Your task to perform on an android device: refresh tabs in the chrome app Image 0: 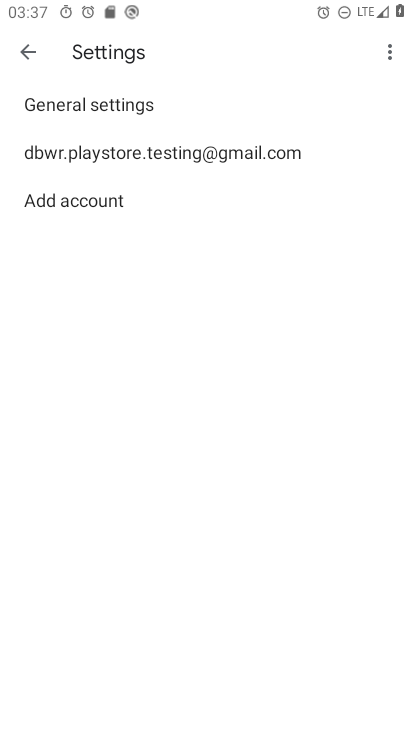
Step 0: press home button
Your task to perform on an android device: refresh tabs in the chrome app Image 1: 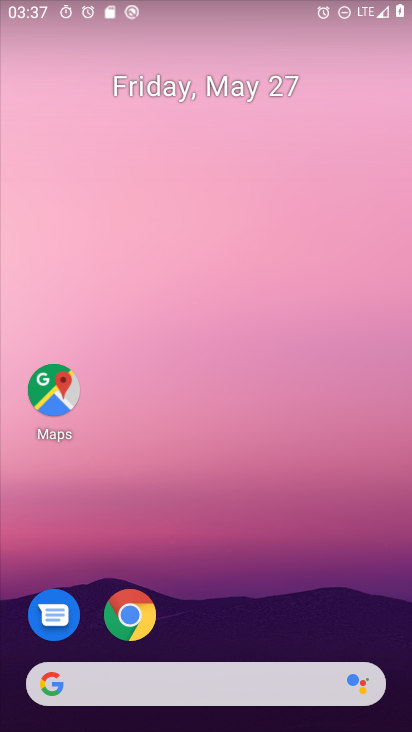
Step 1: drag from (371, 601) to (401, 127)
Your task to perform on an android device: refresh tabs in the chrome app Image 2: 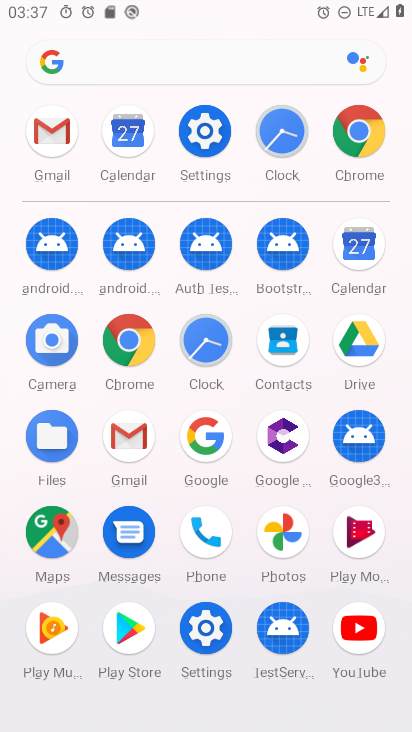
Step 2: click (142, 355)
Your task to perform on an android device: refresh tabs in the chrome app Image 3: 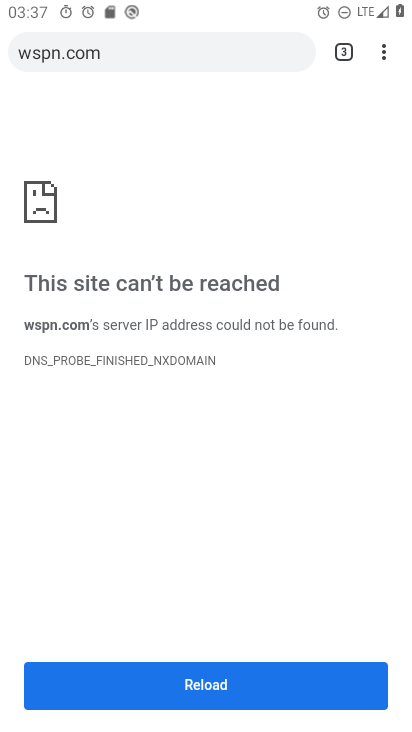
Step 3: click (381, 58)
Your task to perform on an android device: refresh tabs in the chrome app Image 4: 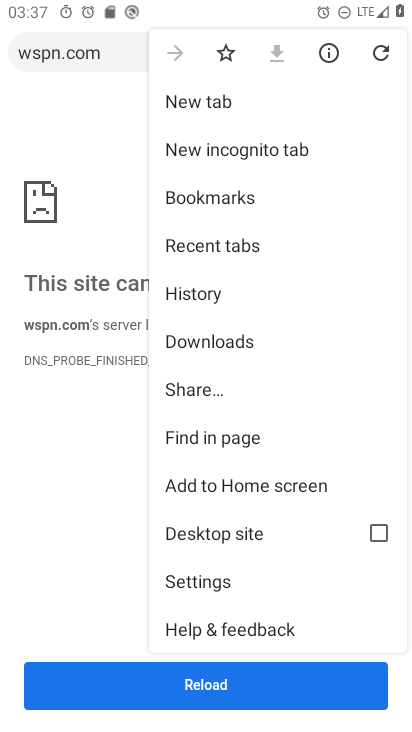
Step 4: click (378, 58)
Your task to perform on an android device: refresh tabs in the chrome app Image 5: 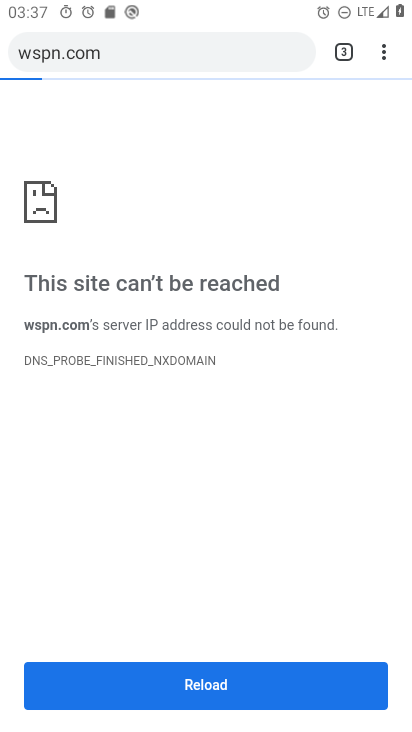
Step 5: click (378, 58)
Your task to perform on an android device: refresh tabs in the chrome app Image 6: 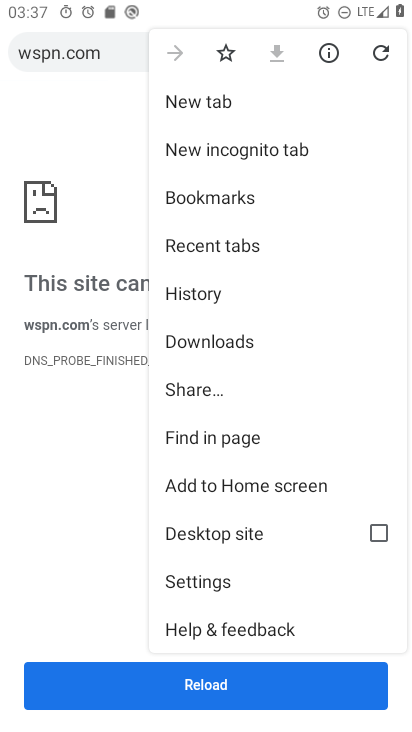
Step 6: click (116, 116)
Your task to perform on an android device: refresh tabs in the chrome app Image 7: 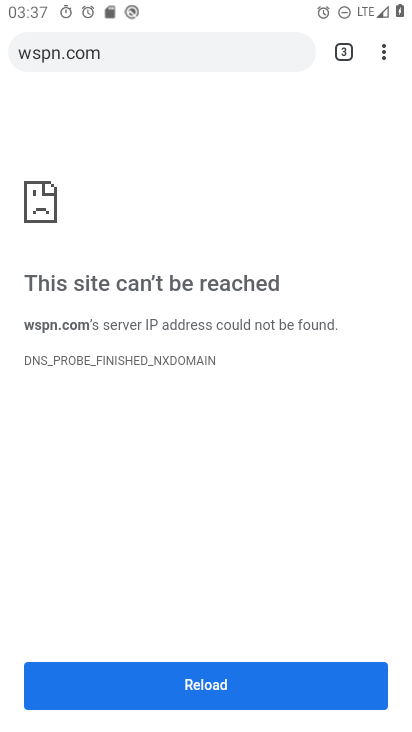
Step 7: click (379, 58)
Your task to perform on an android device: refresh tabs in the chrome app Image 8: 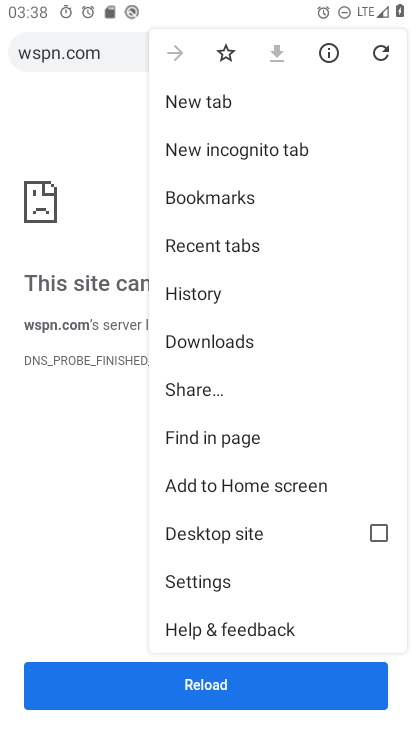
Step 8: click (380, 56)
Your task to perform on an android device: refresh tabs in the chrome app Image 9: 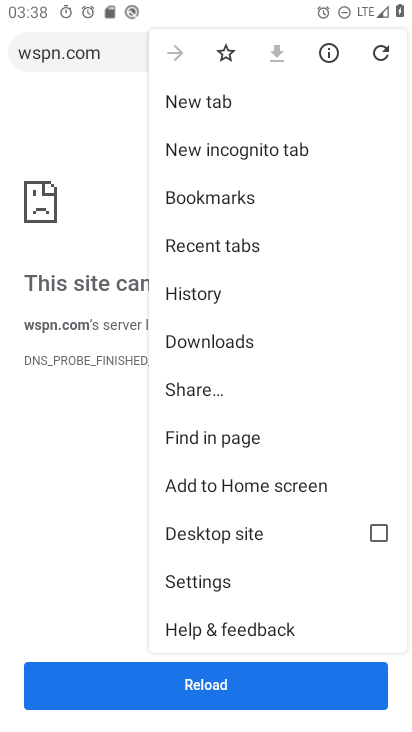
Step 9: click (380, 56)
Your task to perform on an android device: refresh tabs in the chrome app Image 10: 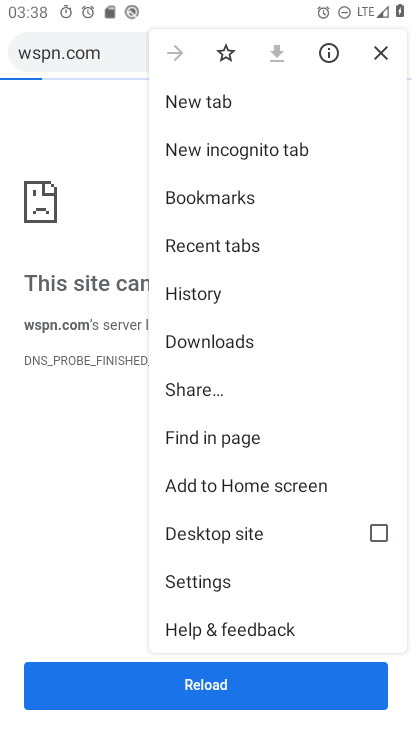
Step 10: click (380, 56)
Your task to perform on an android device: refresh tabs in the chrome app Image 11: 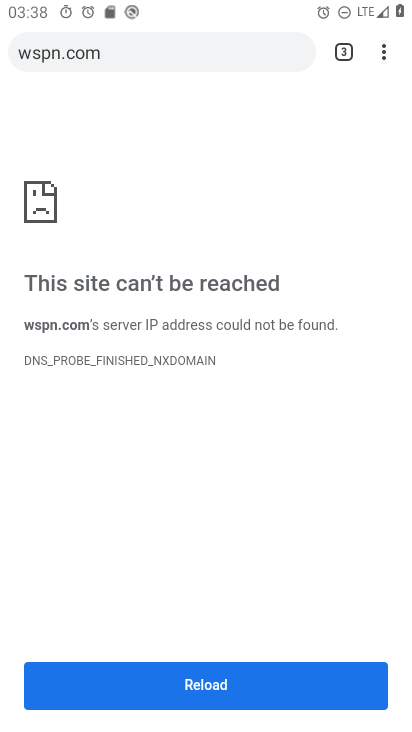
Step 11: click (383, 61)
Your task to perform on an android device: refresh tabs in the chrome app Image 12: 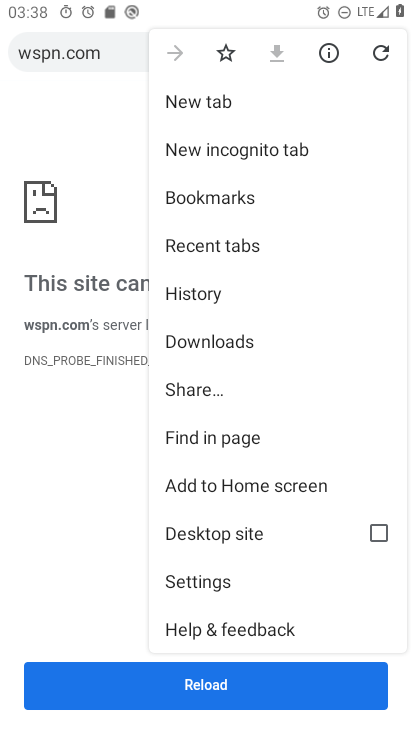
Step 12: click (388, 57)
Your task to perform on an android device: refresh tabs in the chrome app Image 13: 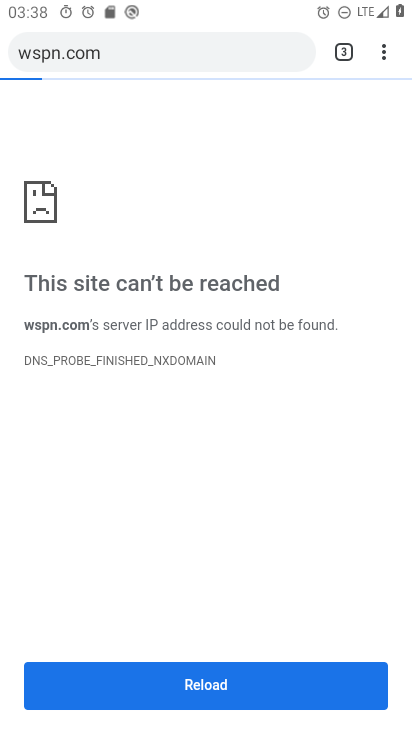
Step 13: task complete